Your task to perform on an android device: turn on javascript in the chrome app Image 0: 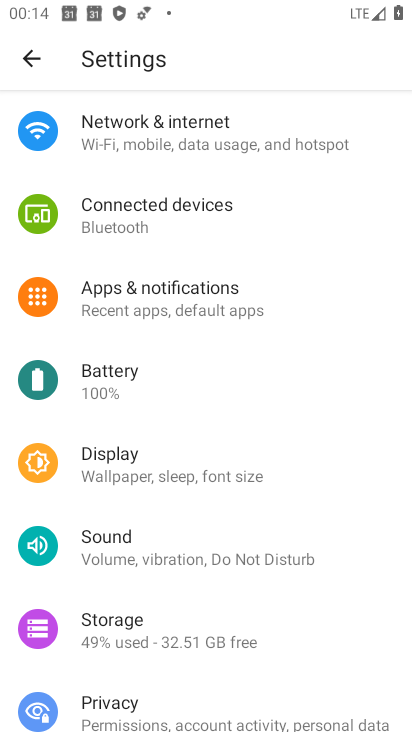
Step 0: press home button
Your task to perform on an android device: turn on javascript in the chrome app Image 1: 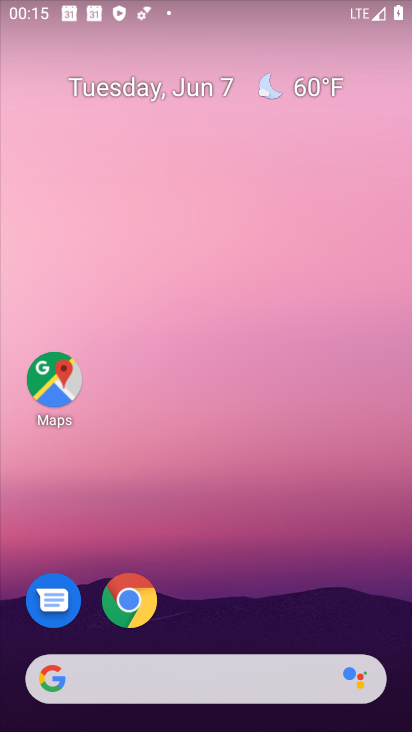
Step 1: click (132, 593)
Your task to perform on an android device: turn on javascript in the chrome app Image 2: 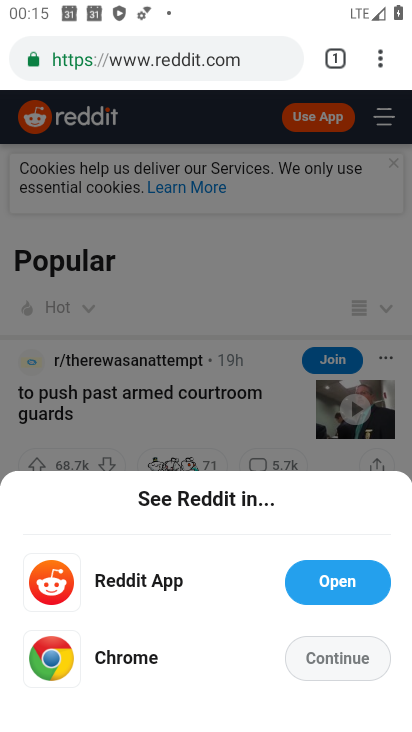
Step 2: click (379, 64)
Your task to perform on an android device: turn on javascript in the chrome app Image 3: 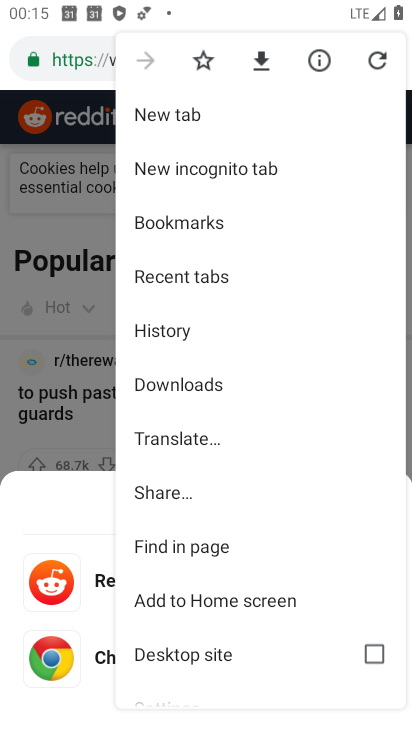
Step 3: drag from (378, 66) to (206, 331)
Your task to perform on an android device: turn on javascript in the chrome app Image 4: 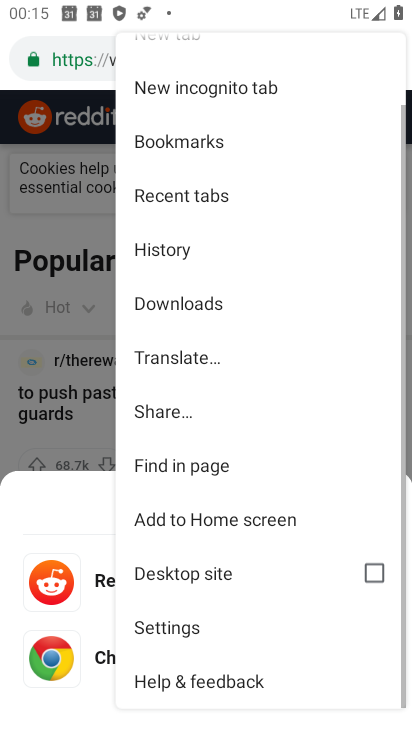
Step 4: drag from (190, 632) to (190, 249)
Your task to perform on an android device: turn on javascript in the chrome app Image 5: 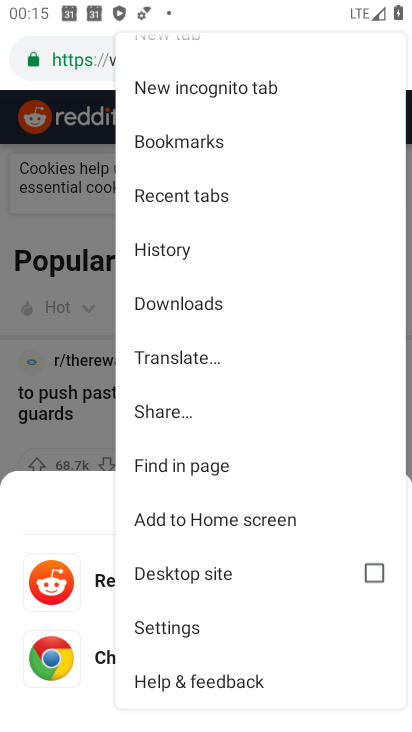
Step 5: click (161, 623)
Your task to perform on an android device: turn on javascript in the chrome app Image 6: 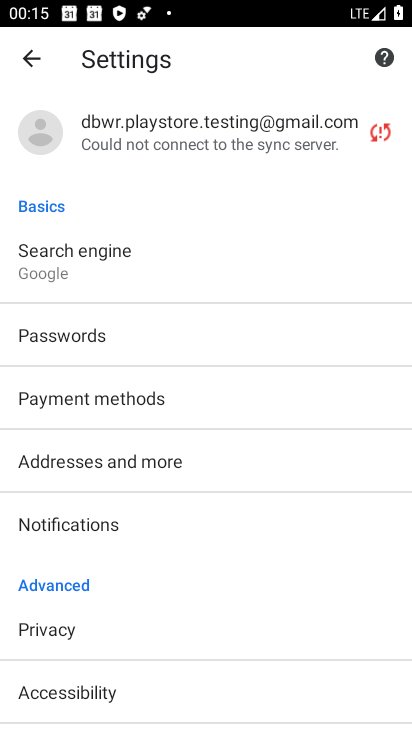
Step 6: drag from (146, 631) to (152, 313)
Your task to perform on an android device: turn on javascript in the chrome app Image 7: 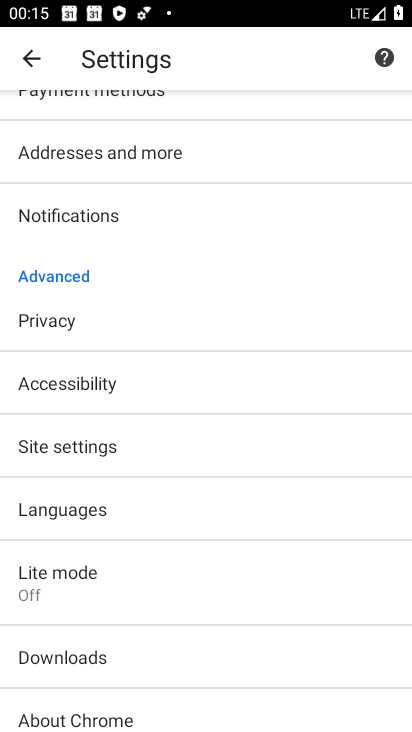
Step 7: click (75, 448)
Your task to perform on an android device: turn on javascript in the chrome app Image 8: 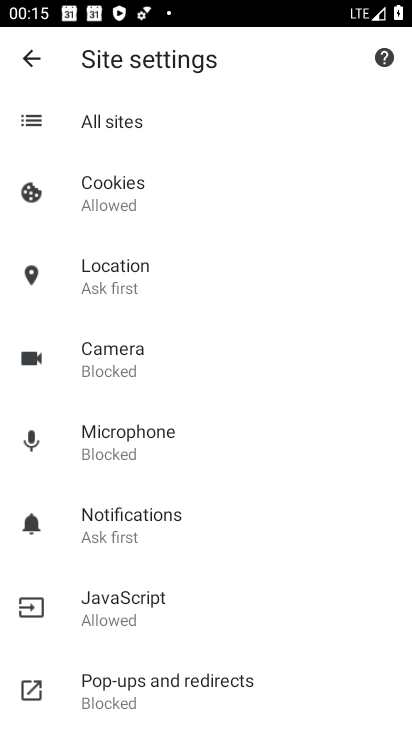
Step 8: click (126, 605)
Your task to perform on an android device: turn on javascript in the chrome app Image 9: 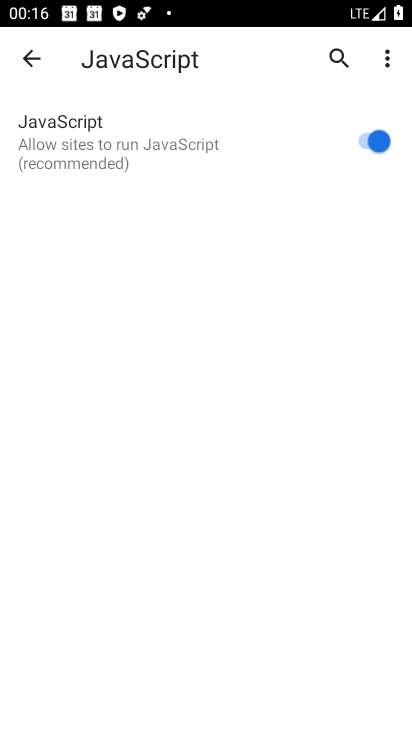
Step 9: task complete